Your task to perform on an android device: turn off priority inbox in the gmail app Image 0: 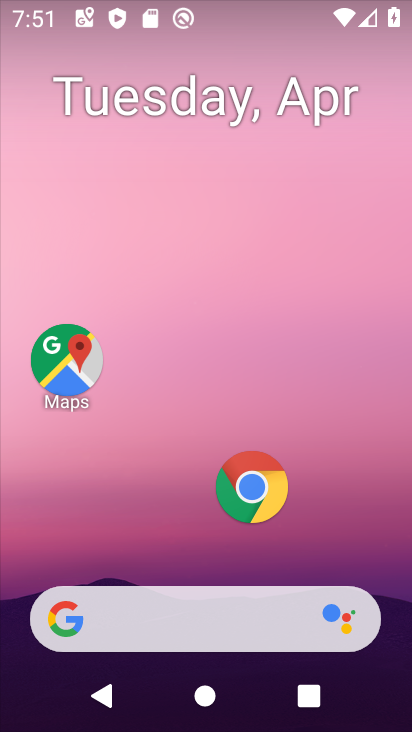
Step 0: drag from (262, 692) to (256, 32)
Your task to perform on an android device: turn off priority inbox in the gmail app Image 1: 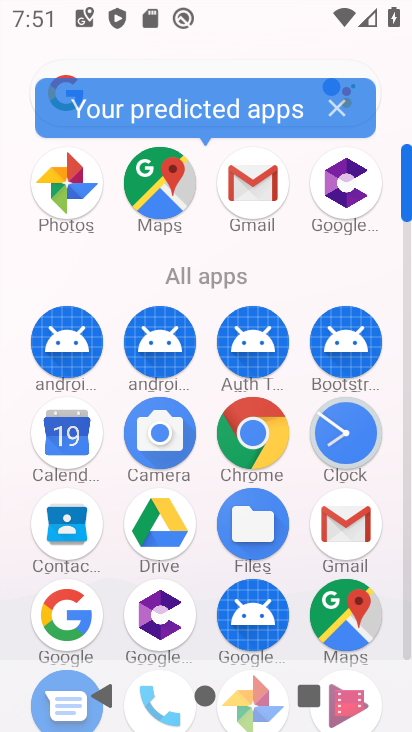
Step 1: click (241, 214)
Your task to perform on an android device: turn off priority inbox in the gmail app Image 2: 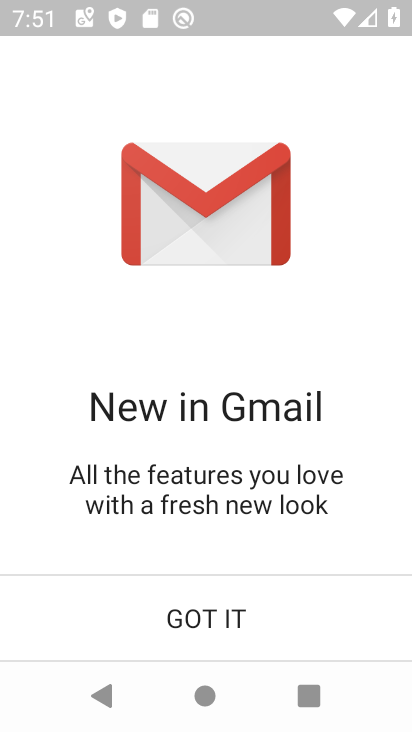
Step 2: click (209, 602)
Your task to perform on an android device: turn off priority inbox in the gmail app Image 3: 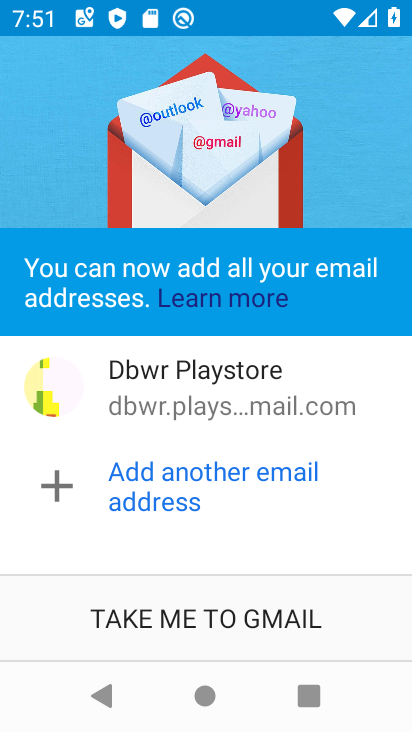
Step 3: click (240, 610)
Your task to perform on an android device: turn off priority inbox in the gmail app Image 4: 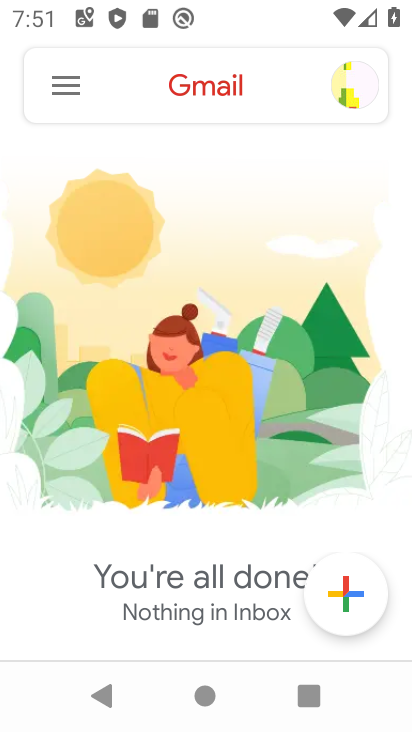
Step 4: click (64, 81)
Your task to perform on an android device: turn off priority inbox in the gmail app Image 5: 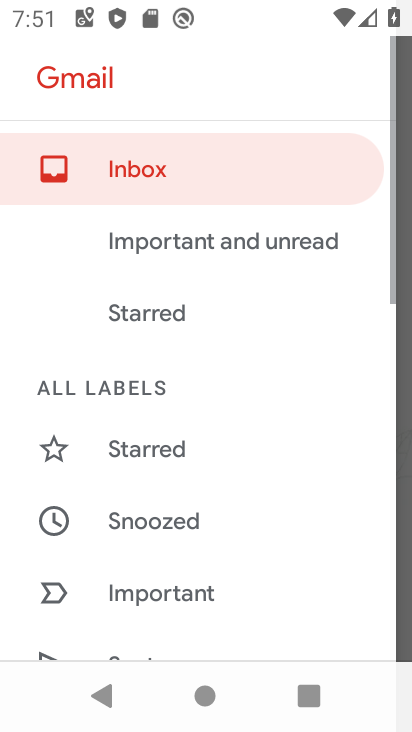
Step 5: drag from (221, 561) to (118, 34)
Your task to perform on an android device: turn off priority inbox in the gmail app Image 6: 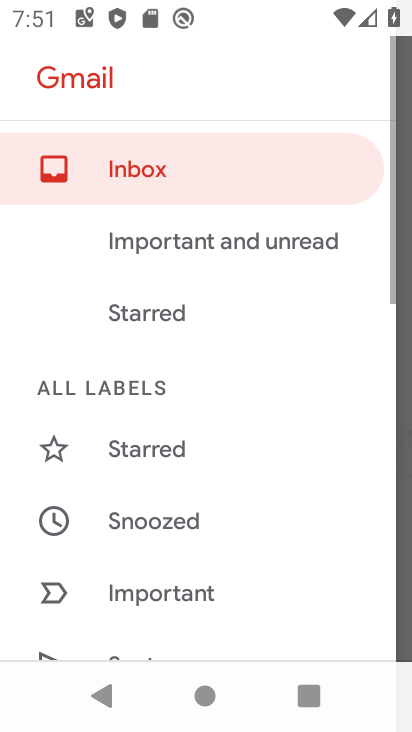
Step 6: drag from (261, 527) to (286, 4)
Your task to perform on an android device: turn off priority inbox in the gmail app Image 7: 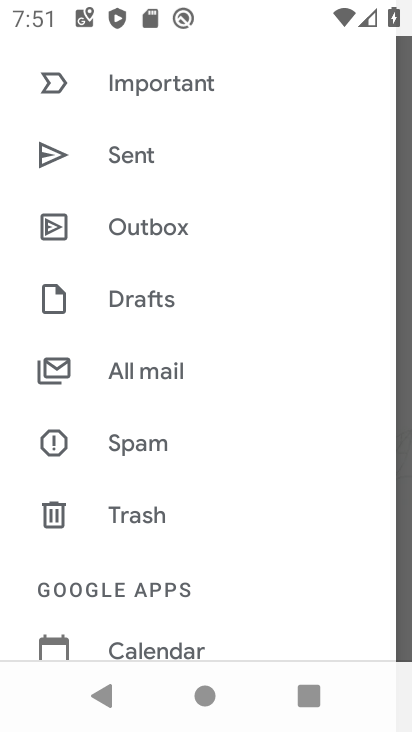
Step 7: drag from (264, 616) to (328, 1)
Your task to perform on an android device: turn off priority inbox in the gmail app Image 8: 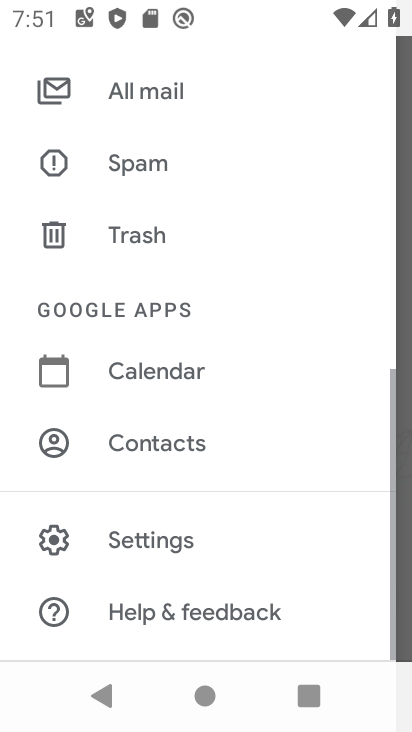
Step 8: click (163, 546)
Your task to perform on an android device: turn off priority inbox in the gmail app Image 9: 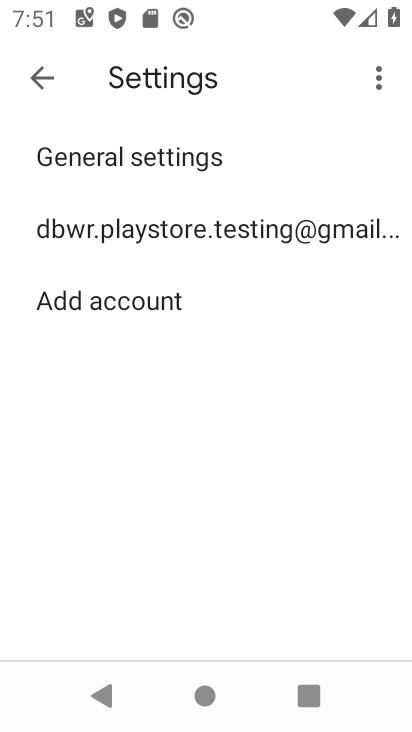
Step 9: click (218, 226)
Your task to perform on an android device: turn off priority inbox in the gmail app Image 10: 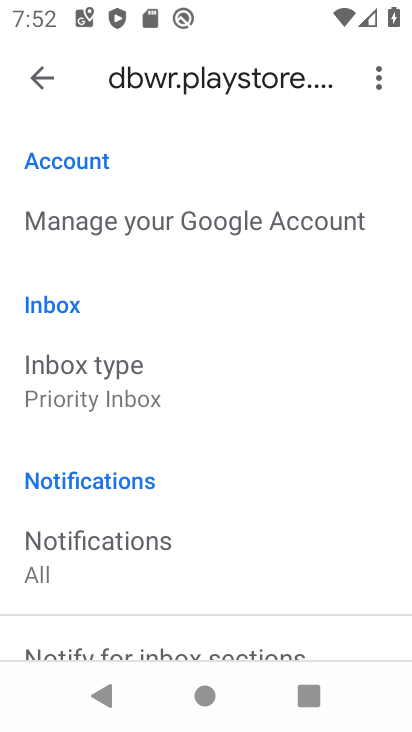
Step 10: click (122, 368)
Your task to perform on an android device: turn off priority inbox in the gmail app Image 11: 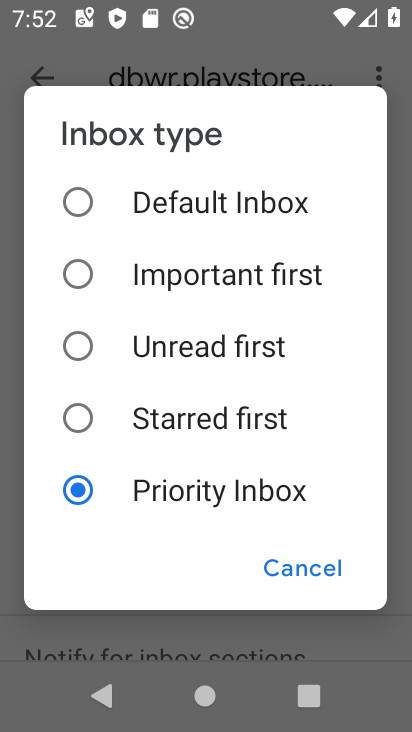
Step 11: click (244, 210)
Your task to perform on an android device: turn off priority inbox in the gmail app Image 12: 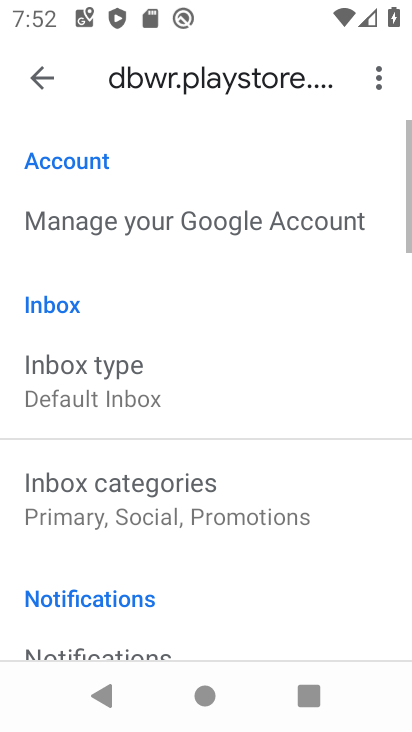
Step 12: task complete